Your task to perform on an android device: Go to Google Image 0: 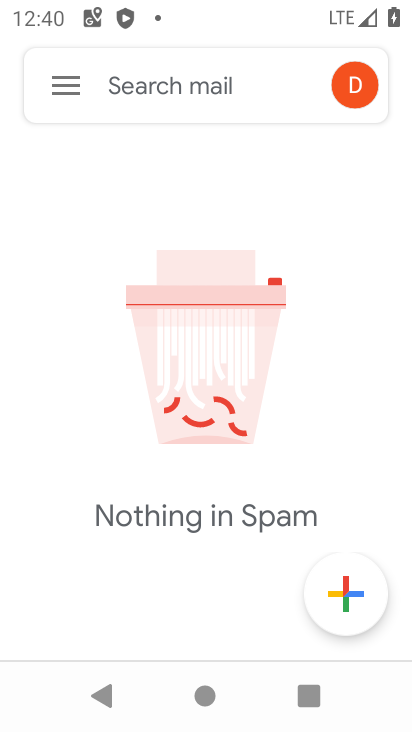
Step 0: press home button
Your task to perform on an android device: Go to Google Image 1: 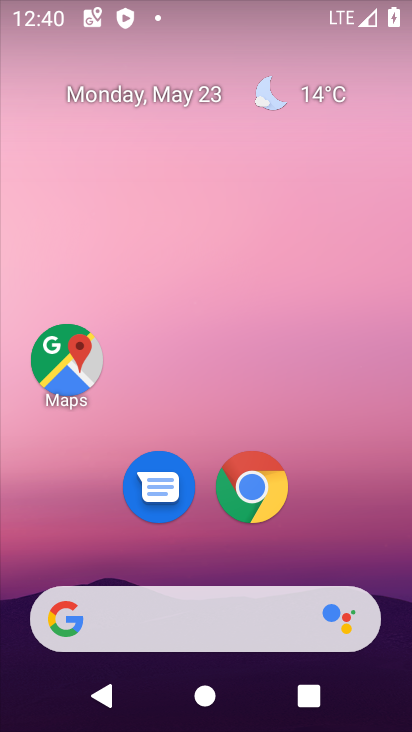
Step 1: click (251, 483)
Your task to perform on an android device: Go to Google Image 2: 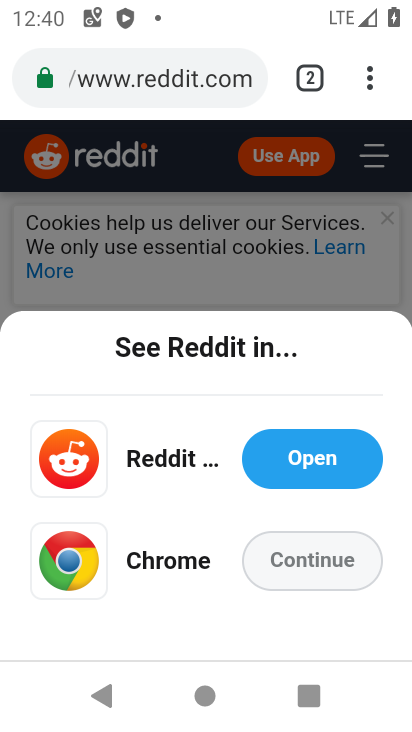
Step 2: task complete